Your task to perform on an android device: turn on data saver in the chrome app Image 0: 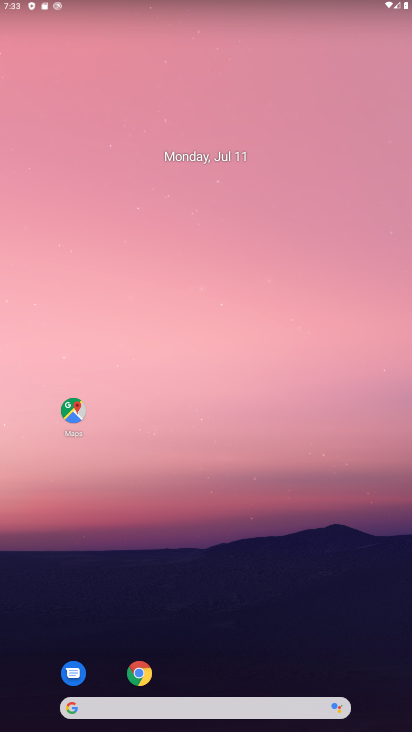
Step 0: click (137, 674)
Your task to perform on an android device: turn on data saver in the chrome app Image 1: 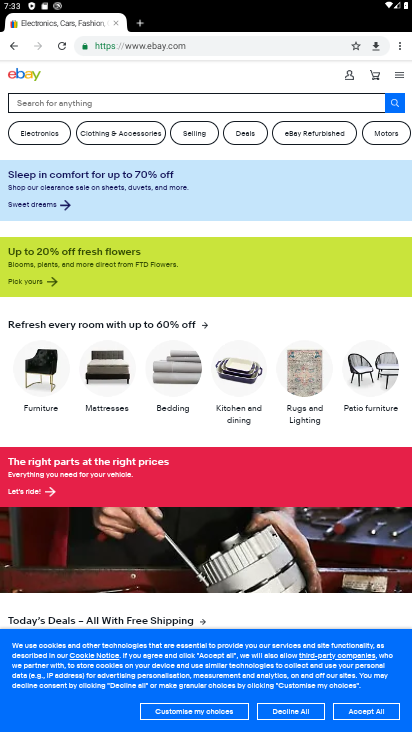
Step 1: click (396, 51)
Your task to perform on an android device: turn on data saver in the chrome app Image 2: 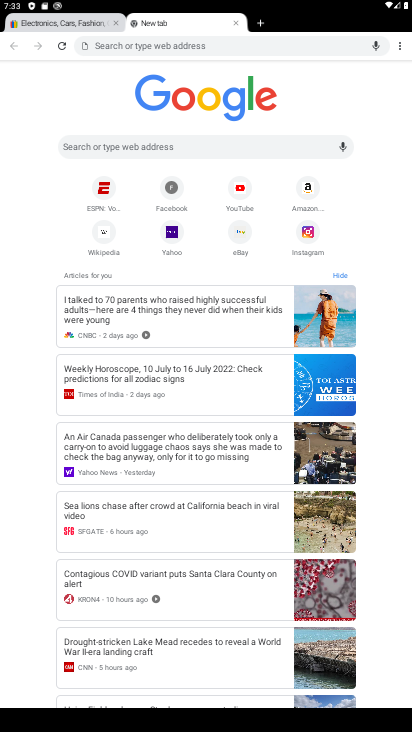
Step 2: click (405, 45)
Your task to perform on an android device: turn on data saver in the chrome app Image 3: 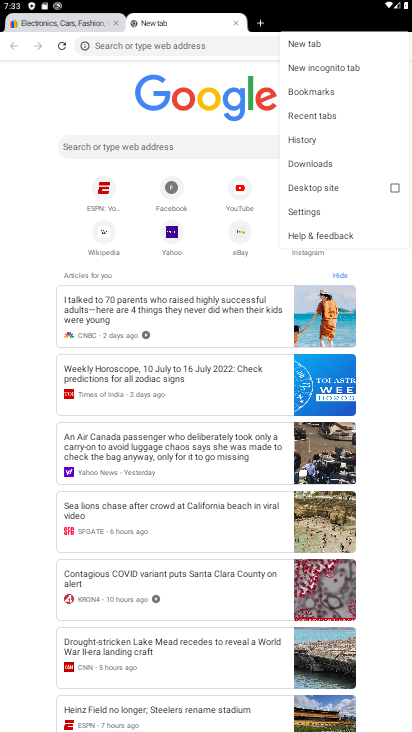
Step 3: click (308, 217)
Your task to perform on an android device: turn on data saver in the chrome app Image 4: 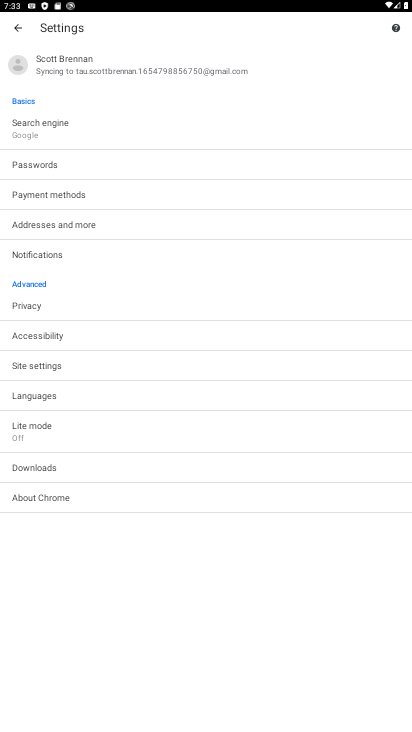
Step 4: click (51, 431)
Your task to perform on an android device: turn on data saver in the chrome app Image 5: 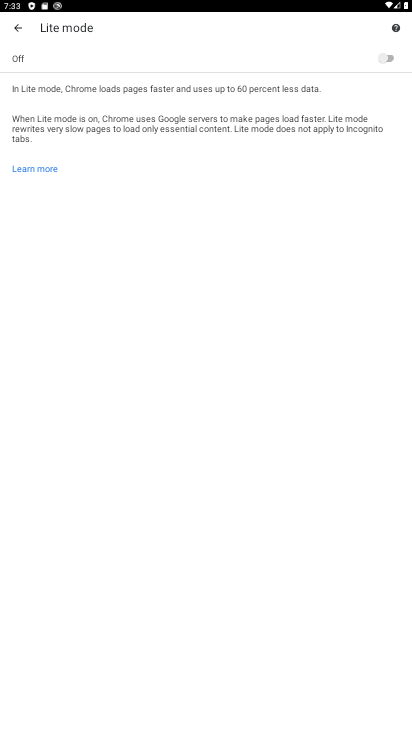
Step 5: click (389, 56)
Your task to perform on an android device: turn on data saver in the chrome app Image 6: 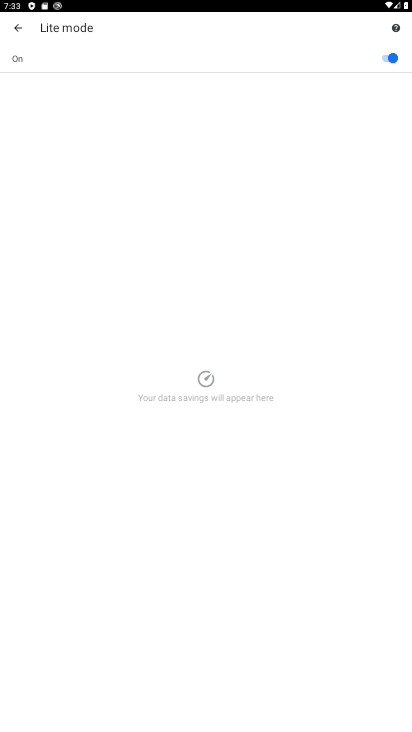
Step 6: task complete